Your task to perform on an android device: turn off sleep mode Image 0: 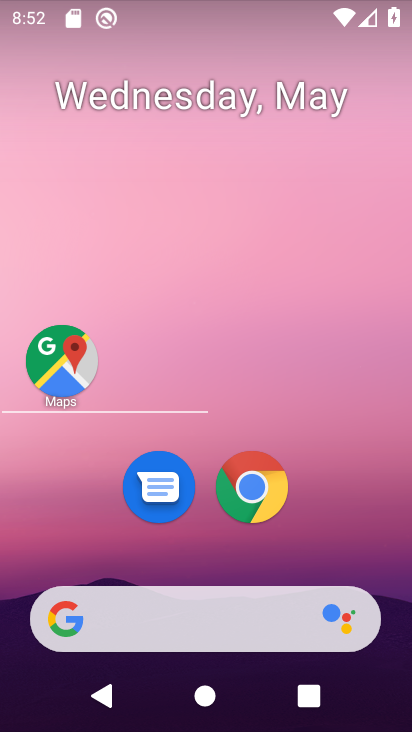
Step 0: click (252, 489)
Your task to perform on an android device: turn off sleep mode Image 1: 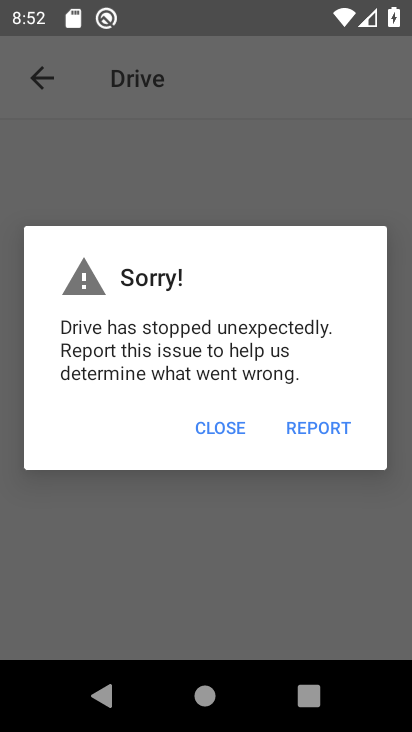
Step 1: press home button
Your task to perform on an android device: turn off sleep mode Image 2: 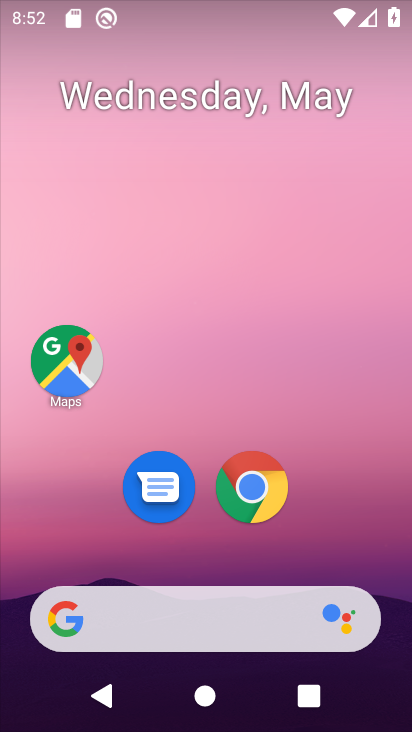
Step 2: drag from (81, 585) to (212, 12)
Your task to perform on an android device: turn off sleep mode Image 3: 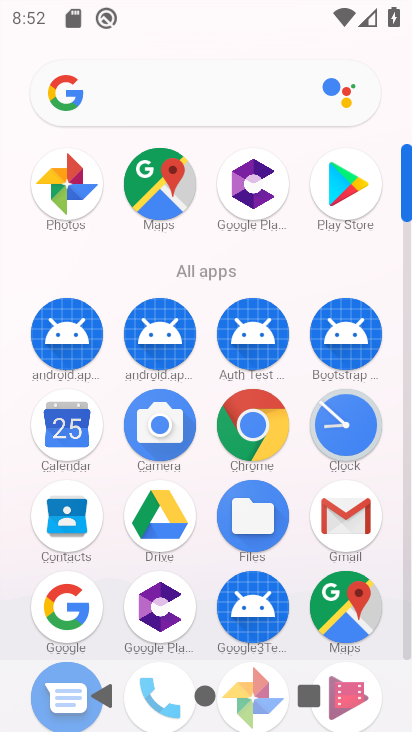
Step 3: drag from (131, 617) to (193, 319)
Your task to perform on an android device: turn off sleep mode Image 4: 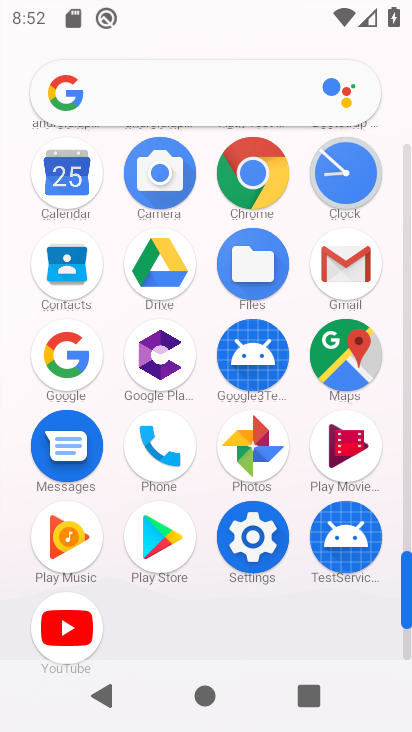
Step 4: click (248, 529)
Your task to perform on an android device: turn off sleep mode Image 5: 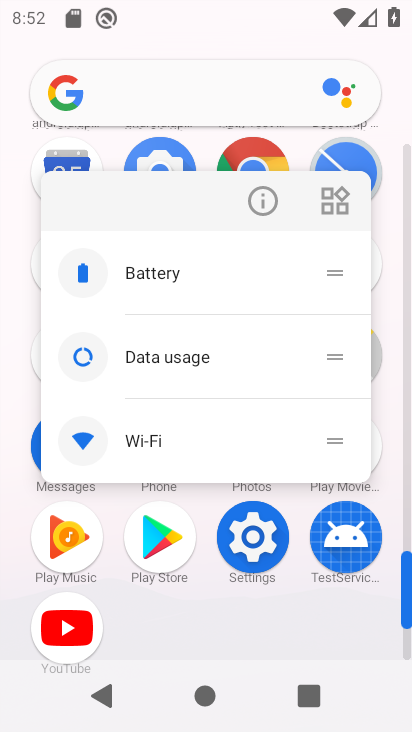
Step 5: click (251, 550)
Your task to perform on an android device: turn off sleep mode Image 6: 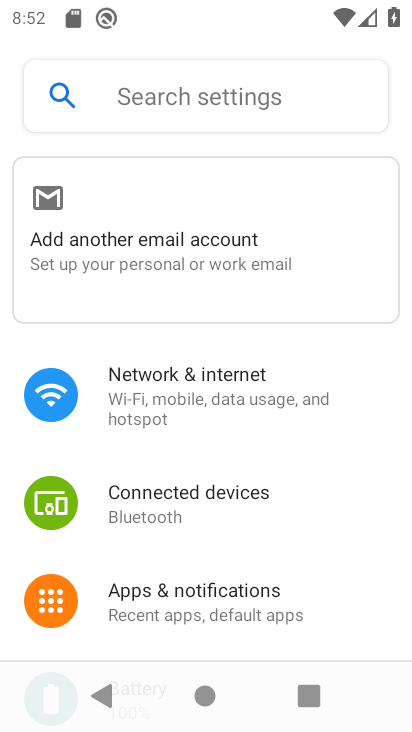
Step 6: drag from (165, 611) to (234, 321)
Your task to perform on an android device: turn off sleep mode Image 7: 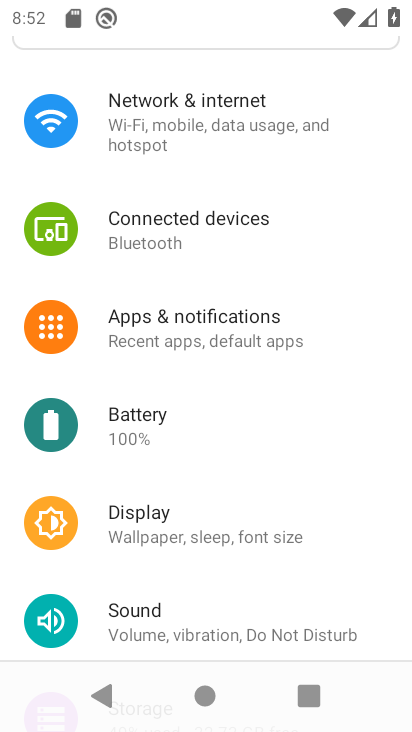
Step 7: click (154, 537)
Your task to perform on an android device: turn off sleep mode Image 8: 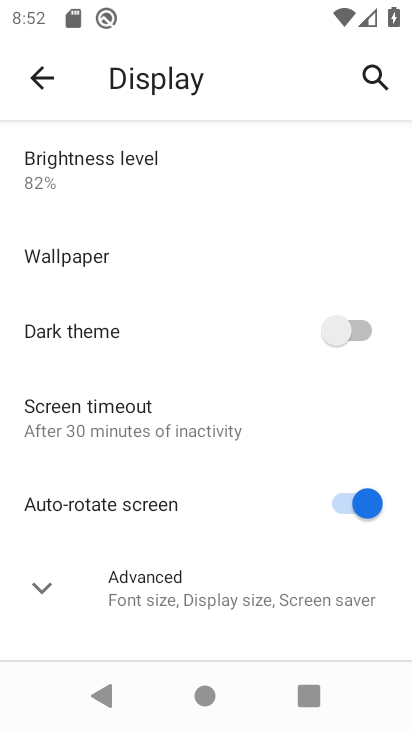
Step 8: click (172, 577)
Your task to perform on an android device: turn off sleep mode Image 9: 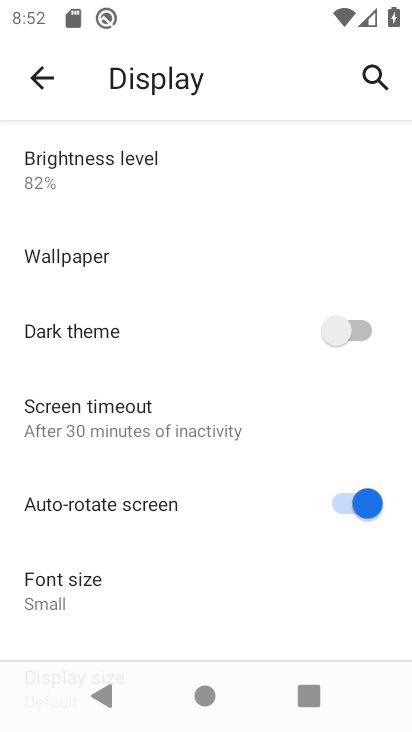
Step 9: task complete